Your task to perform on an android device: empty trash in google photos Image 0: 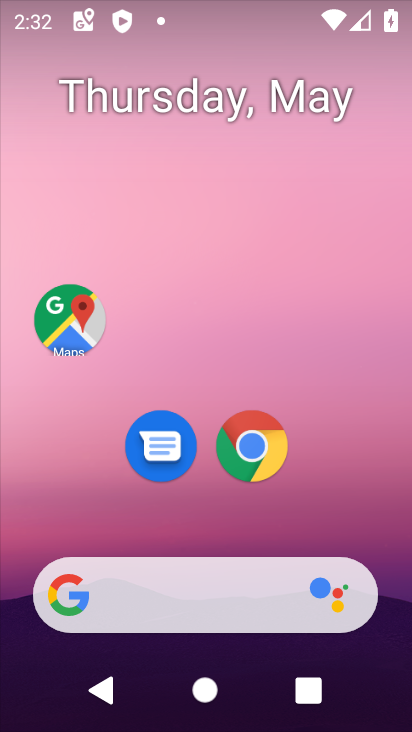
Step 0: drag from (203, 539) to (140, 48)
Your task to perform on an android device: empty trash in google photos Image 1: 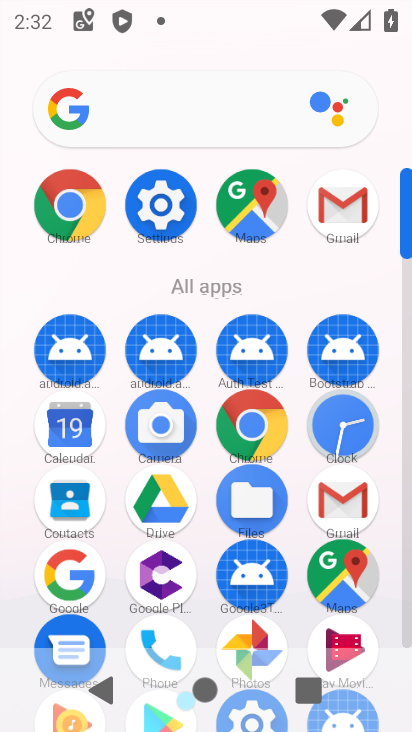
Step 1: drag from (212, 547) to (226, 218)
Your task to perform on an android device: empty trash in google photos Image 2: 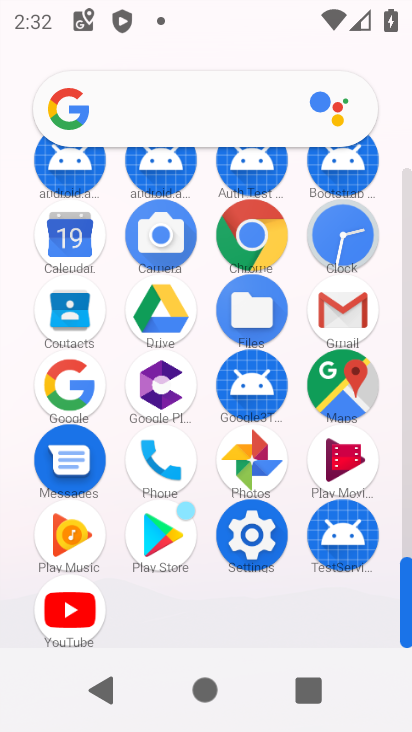
Step 2: click (246, 459)
Your task to perform on an android device: empty trash in google photos Image 3: 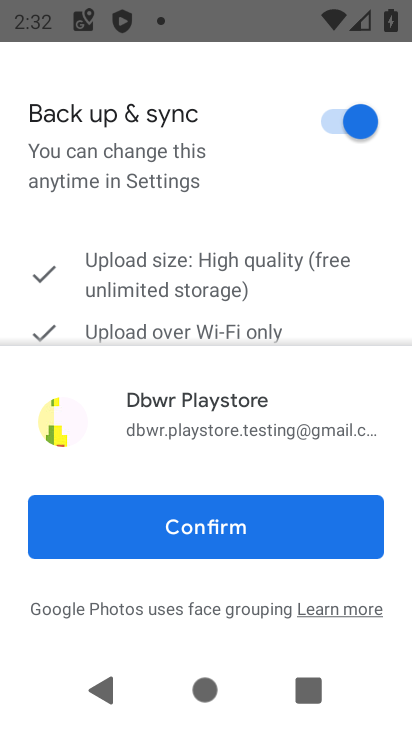
Step 3: click (127, 518)
Your task to perform on an android device: empty trash in google photos Image 4: 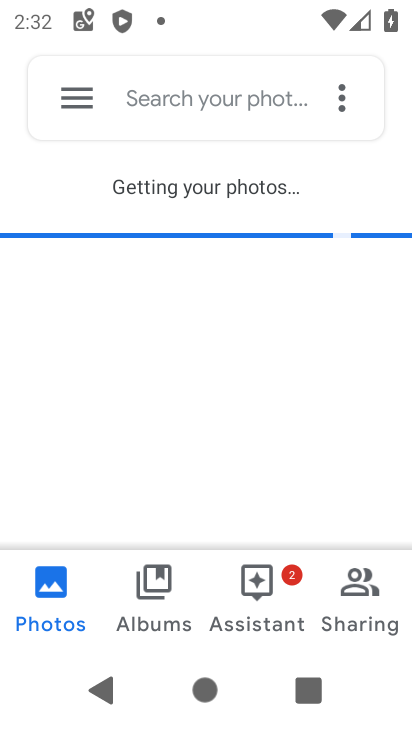
Step 4: click (80, 102)
Your task to perform on an android device: empty trash in google photos Image 5: 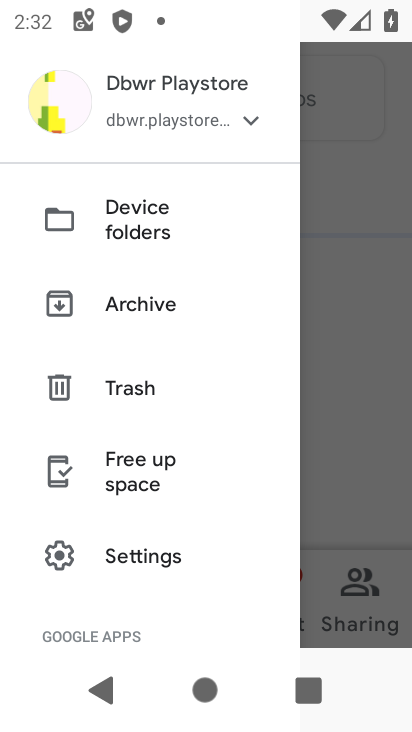
Step 5: click (170, 389)
Your task to perform on an android device: empty trash in google photos Image 6: 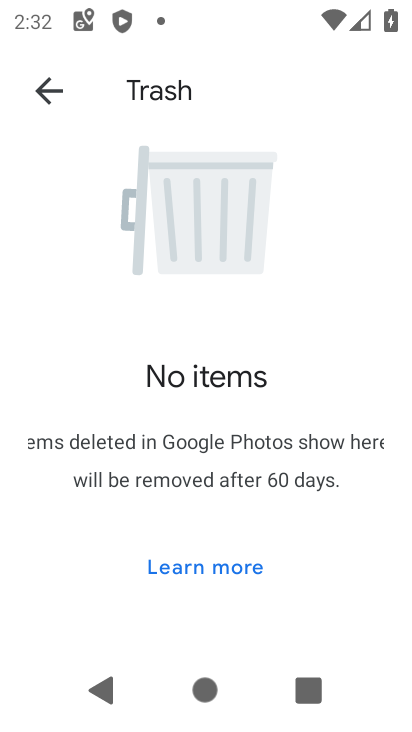
Step 6: task complete